Your task to perform on an android device: Find coffee shops on Maps Image 0: 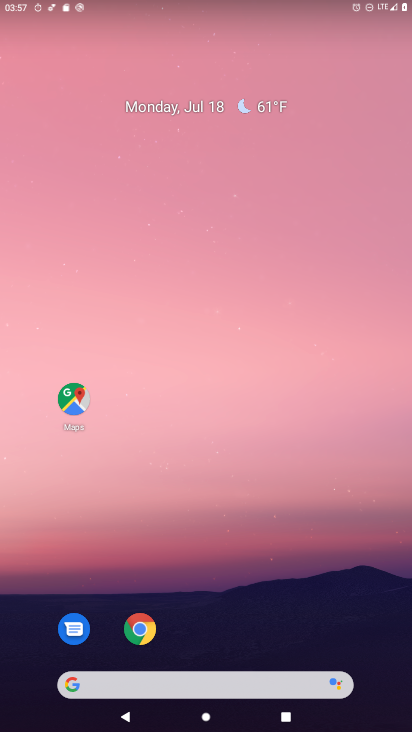
Step 0: click (72, 399)
Your task to perform on an android device: Find coffee shops on Maps Image 1: 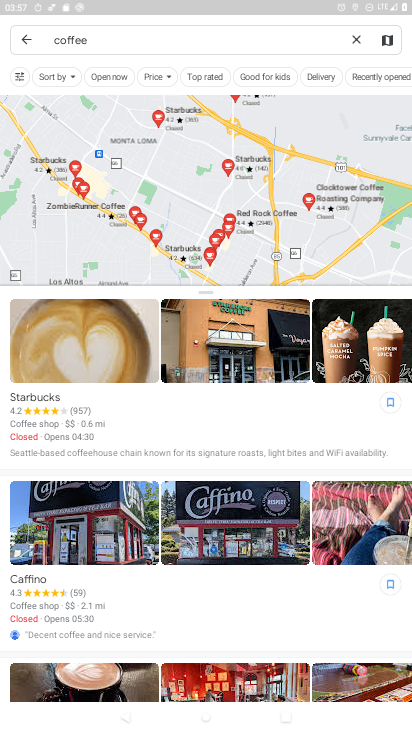
Step 1: press back button
Your task to perform on an android device: Find coffee shops on Maps Image 2: 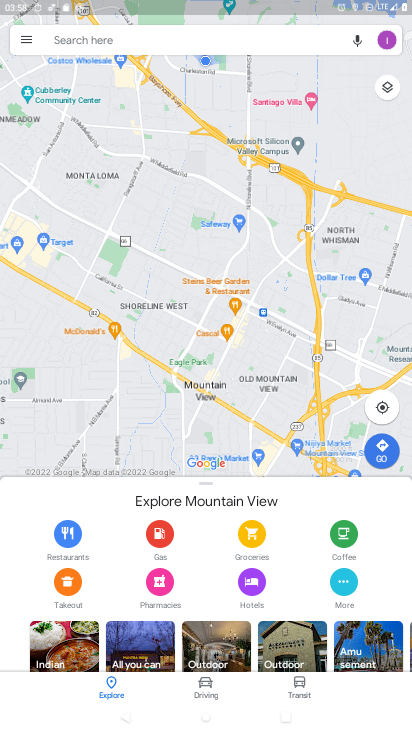
Step 2: click (120, 45)
Your task to perform on an android device: Find coffee shops on Maps Image 3: 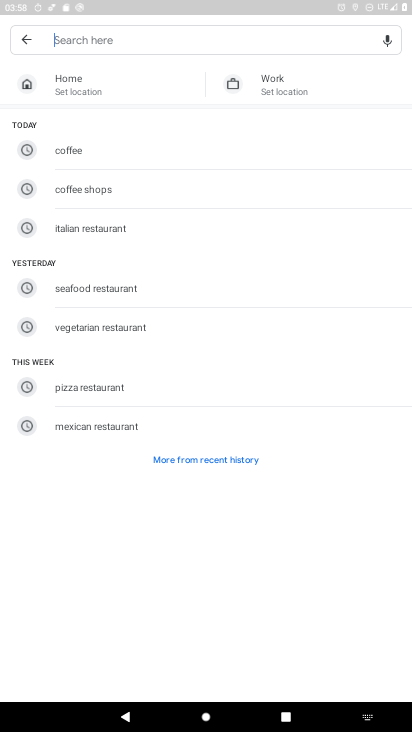
Step 3: type "coffee shops"
Your task to perform on an android device: Find coffee shops on Maps Image 4: 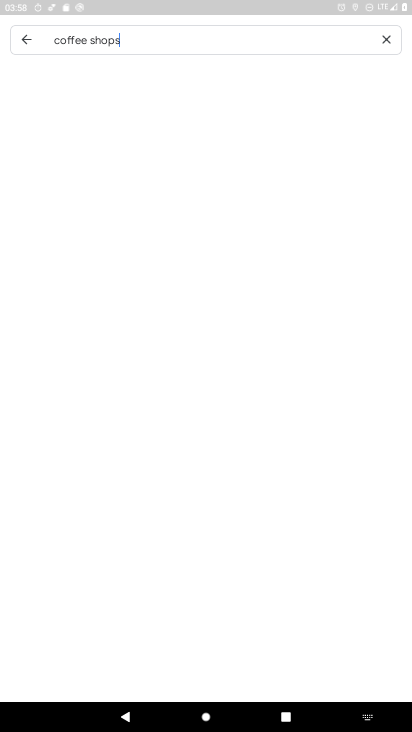
Step 4: type ""
Your task to perform on an android device: Find coffee shops on Maps Image 5: 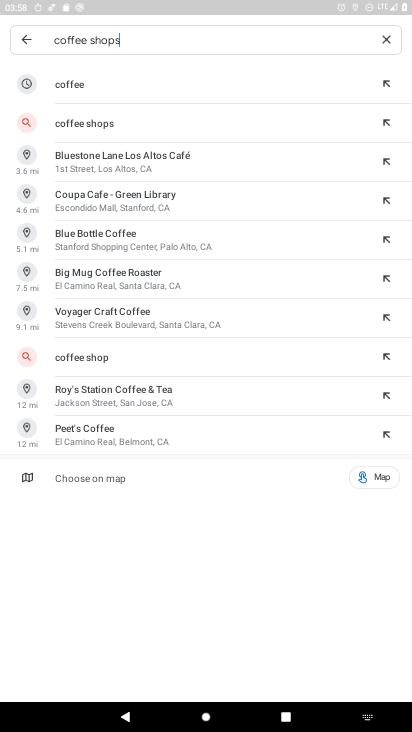
Step 5: click (94, 121)
Your task to perform on an android device: Find coffee shops on Maps Image 6: 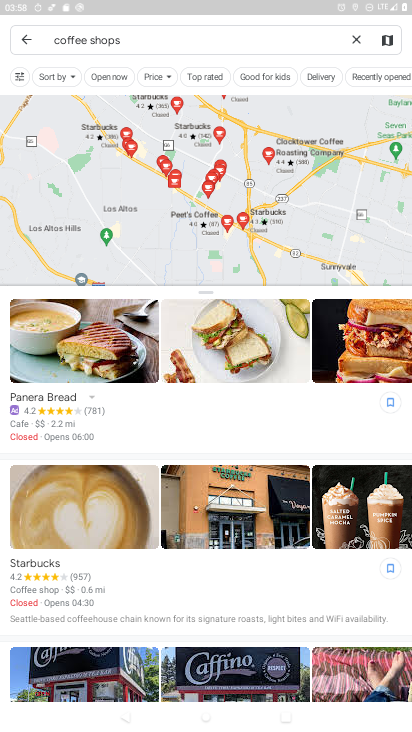
Step 6: task complete